Your task to perform on an android device: turn on location history Image 0: 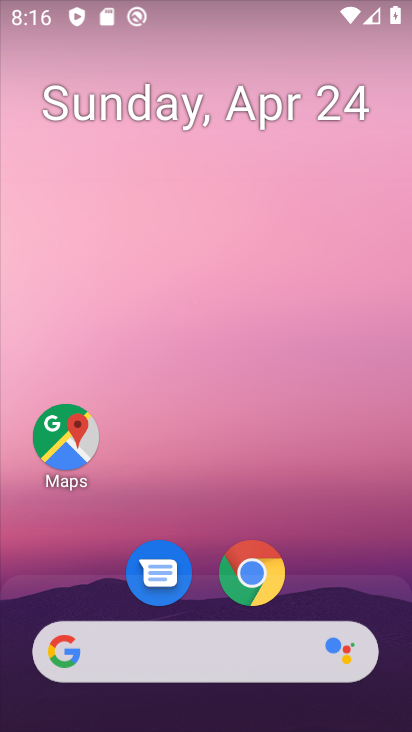
Step 0: click (61, 455)
Your task to perform on an android device: turn on location history Image 1: 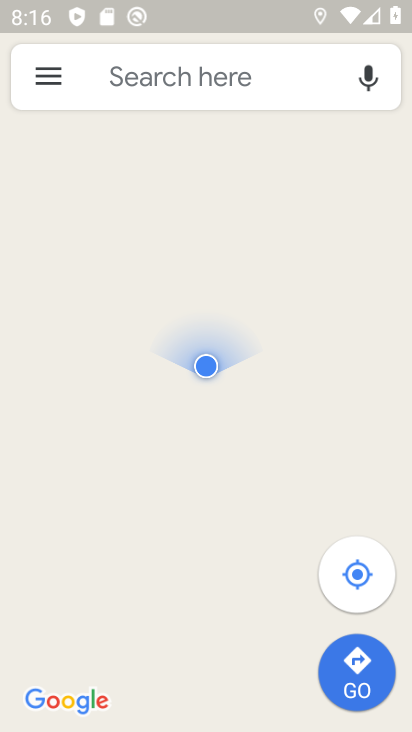
Step 1: click (48, 82)
Your task to perform on an android device: turn on location history Image 2: 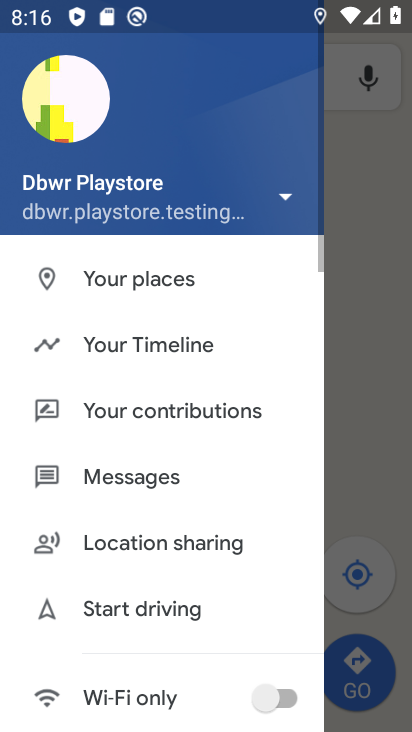
Step 2: click (153, 342)
Your task to perform on an android device: turn on location history Image 3: 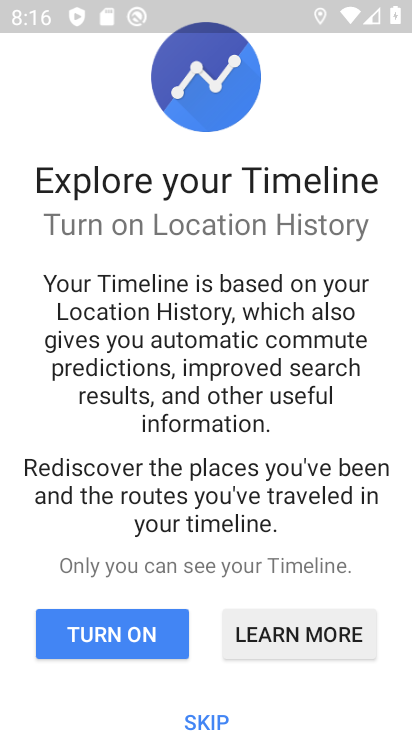
Step 3: click (142, 639)
Your task to perform on an android device: turn on location history Image 4: 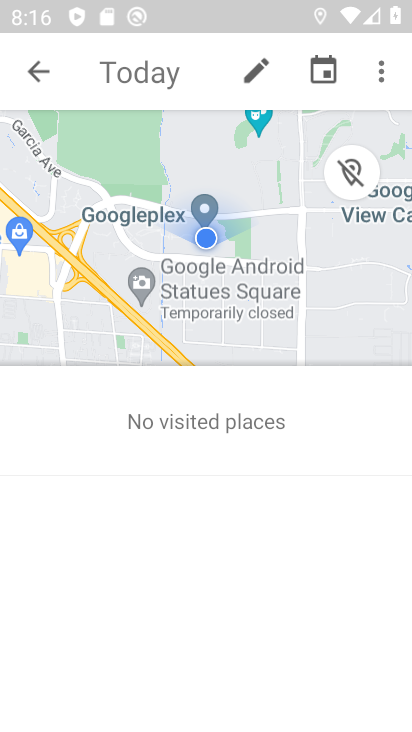
Step 4: click (383, 79)
Your task to perform on an android device: turn on location history Image 5: 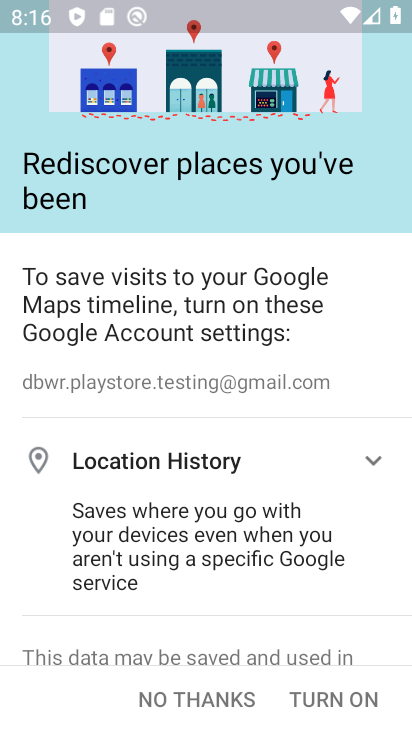
Step 5: drag from (278, 581) to (222, 253)
Your task to perform on an android device: turn on location history Image 6: 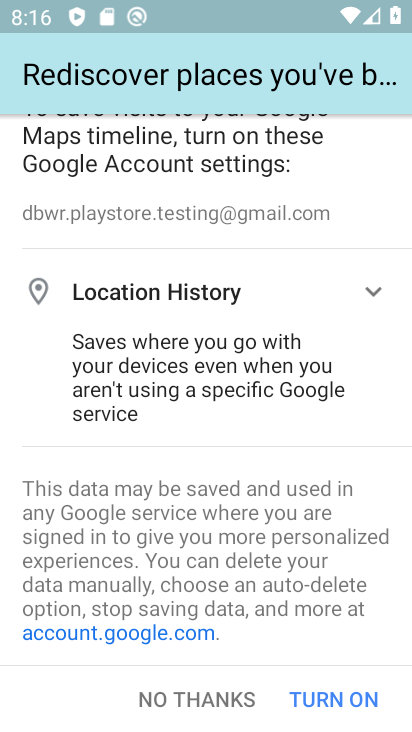
Step 6: drag from (262, 589) to (275, 290)
Your task to perform on an android device: turn on location history Image 7: 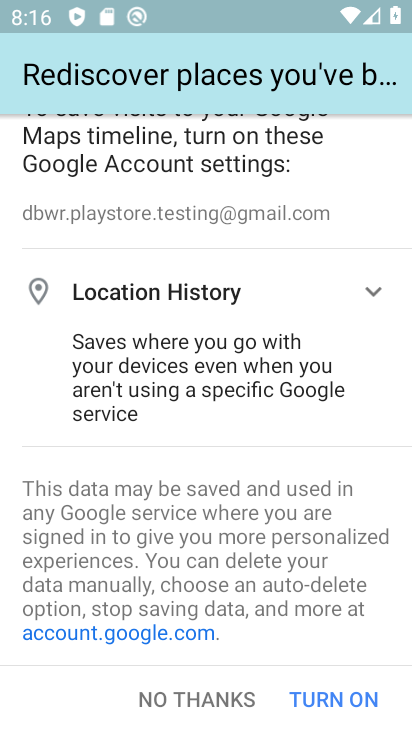
Step 7: click (378, 294)
Your task to perform on an android device: turn on location history Image 8: 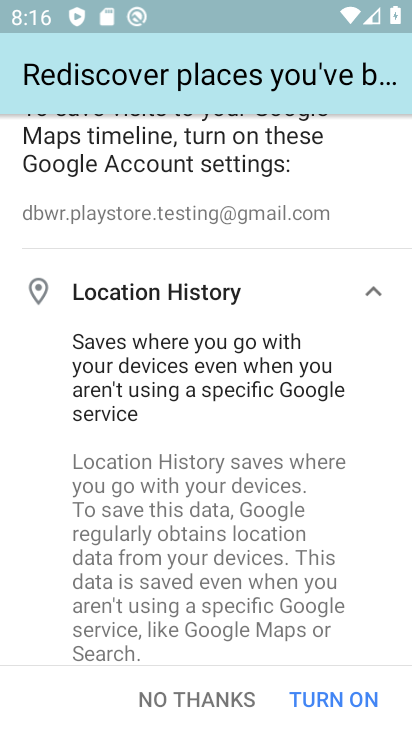
Step 8: drag from (256, 574) to (203, 274)
Your task to perform on an android device: turn on location history Image 9: 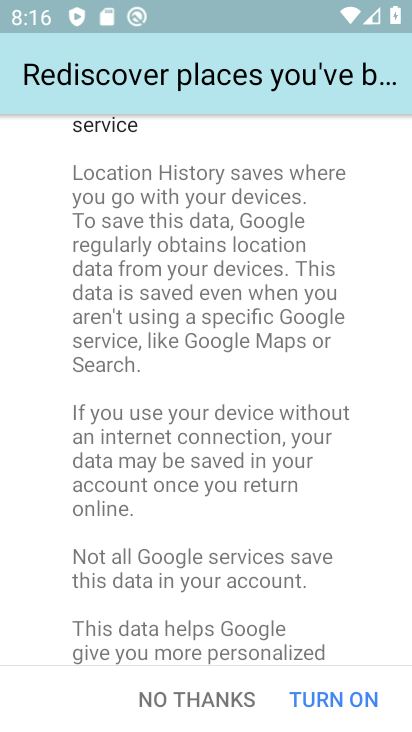
Step 9: drag from (285, 582) to (260, 266)
Your task to perform on an android device: turn on location history Image 10: 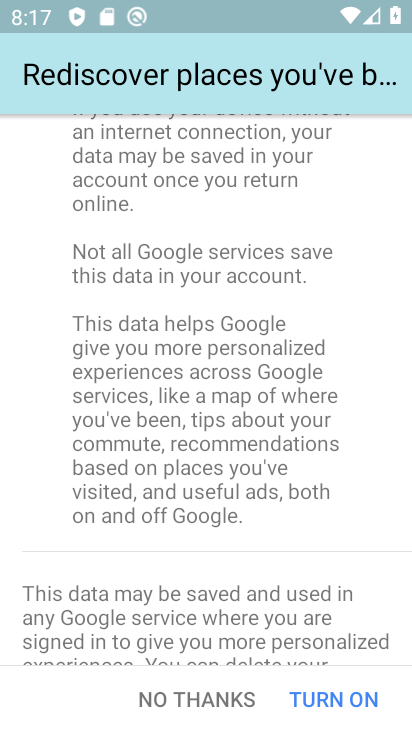
Step 10: click (338, 704)
Your task to perform on an android device: turn on location history Image 11: 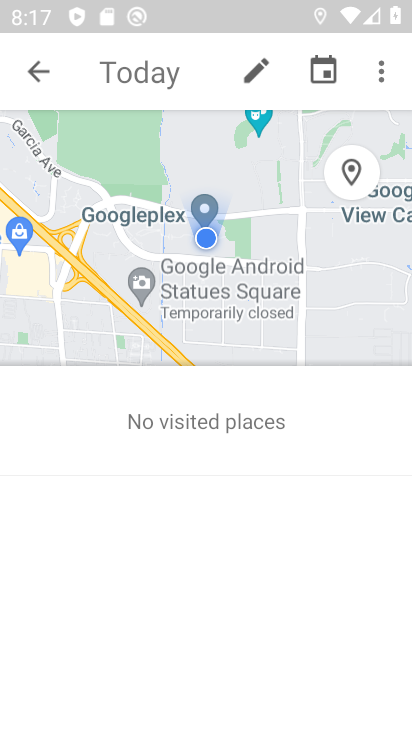
Step 11: click (375, 77)
Your task to perform on an android device: turn on location history Image 12: 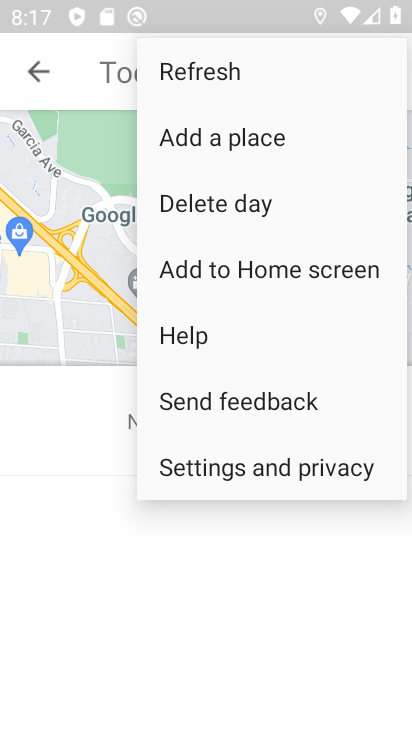
Step 12: click (243, 470)
Your task to perform on an android device: turn on location history Image 13: 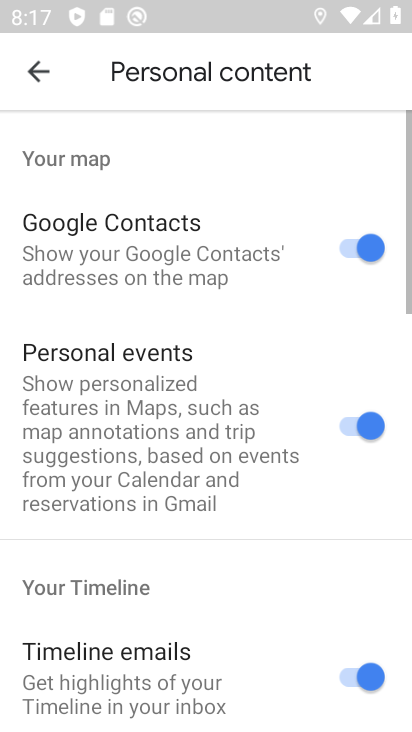
Step 13: drag from (218, 539) to (208, 93)
Your task to perform on an android device: turn on location history Image 14: 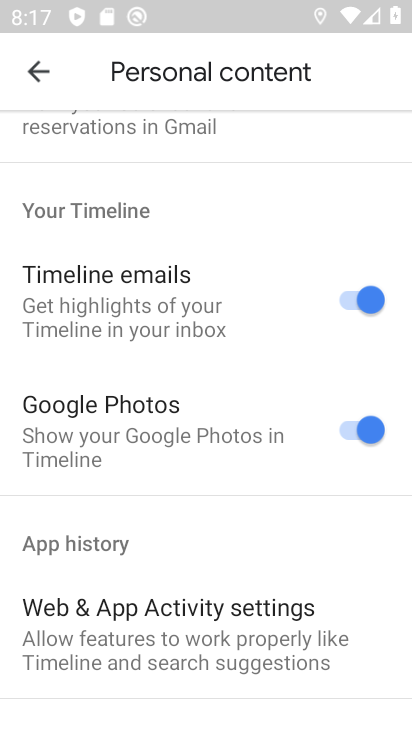
Step 14: drag from (197, 619) to (194, 181)
Your task to perform on an android device: turn on location history Image 15: 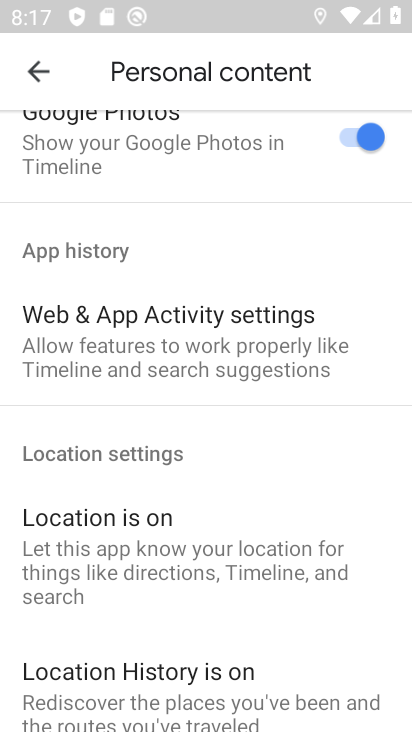
Step 15: click (139, 668)
Your task to perform on an android device: turn on location history Image 16: 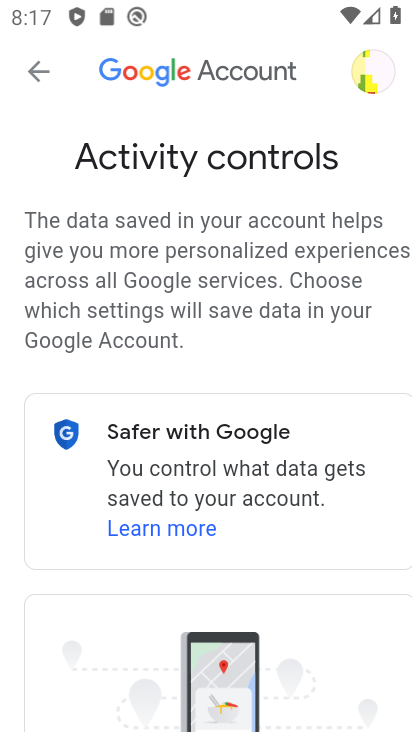
Step 16: task complete